Your task to perform on an android device: Open internet settings Image 0: 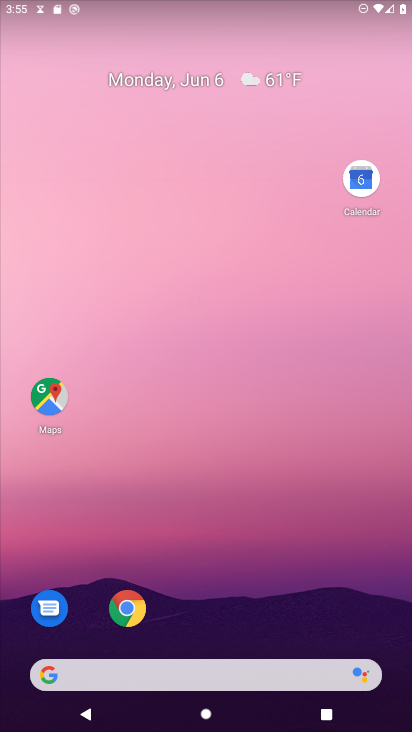
Step 0: drag from (229, 570) to (274, 40)
Your task to perform on an android device: Open internet settings Image 1: 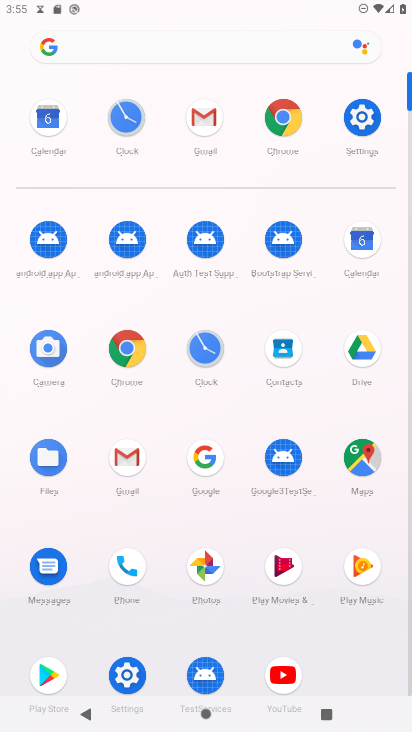
Step 1: click (358, 99)
Your task to perform on an android device: Open internet settings Image 2: 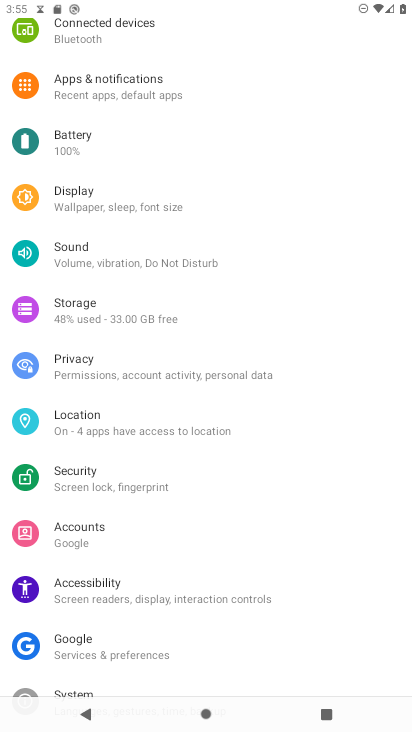
Step 2: drag from (187, 124) to (207, 698)
Your task to perform on an android device: Open internet settings Image 3: 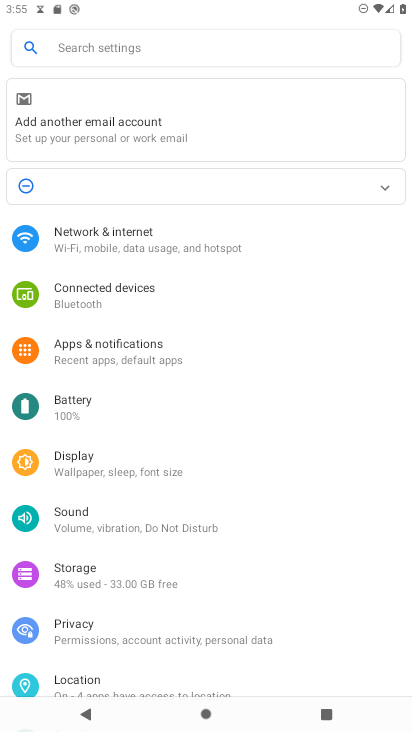
Step 3: click (167, 251)
Your task to perform on an android device: Open internet settings Image 4: 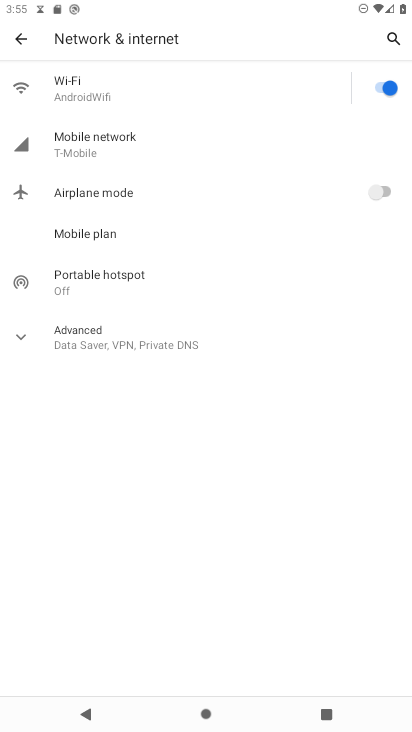
Step 4: click (113, 153)
Your task to perform on an android device: Open internet settings Image 5: 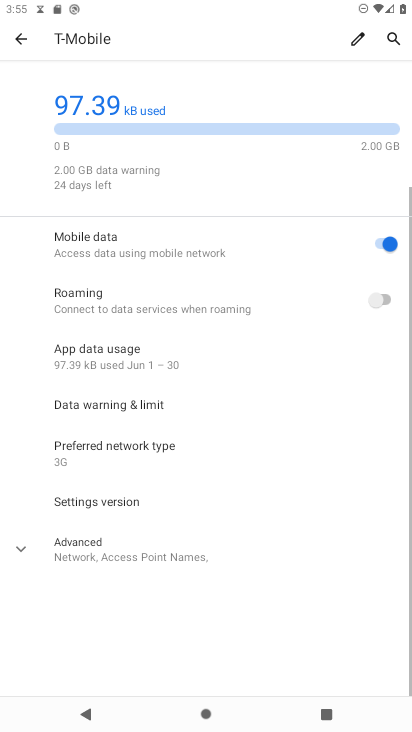
Step 5: task complete